Your task to perform on an android device: toggle show notifications on the lock screen Image 0: 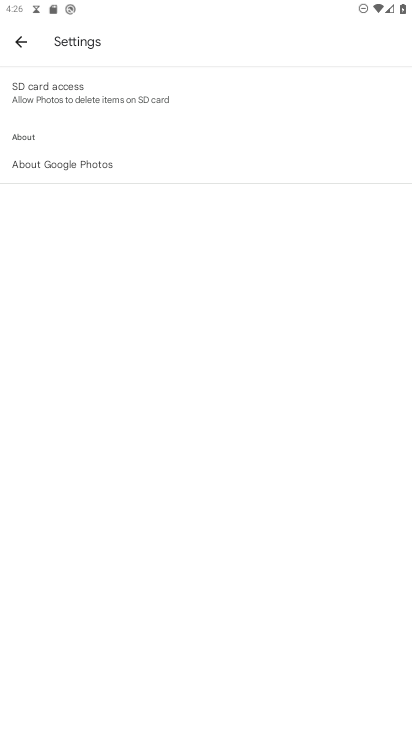
Step 0: press home button
Your task to perform on an android device: toggle show notifications on the lock screen Image 1: 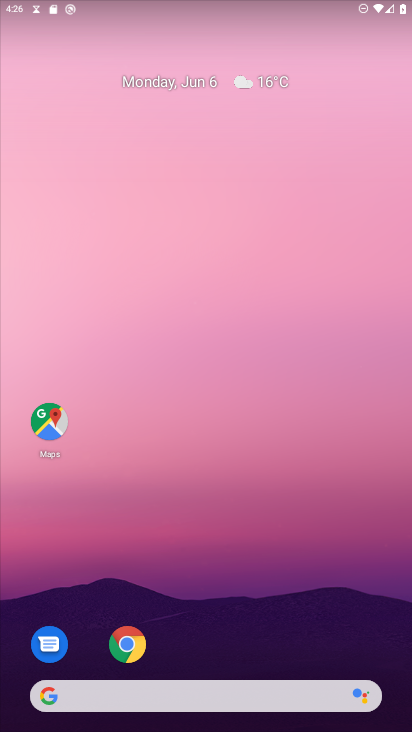
Step 1: drag from (114, 729) to (18, 171)
Your task to perform on an android device: toggle show notifications on the lock screen Image 2: 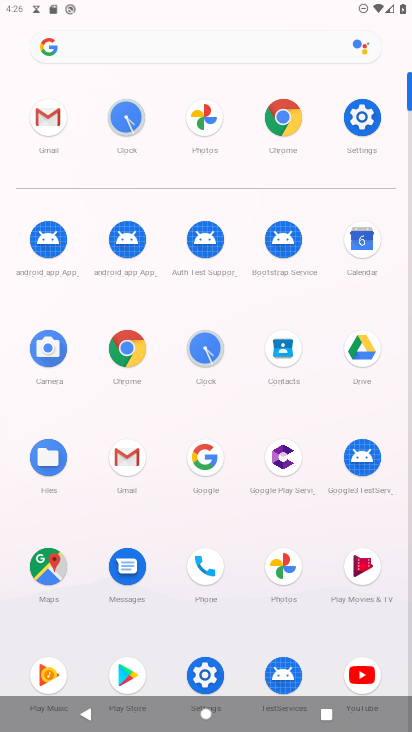
Step 2: click (349, 131)
Your task to perform on an android device: toggle show notifications on the lock screen Image 3: 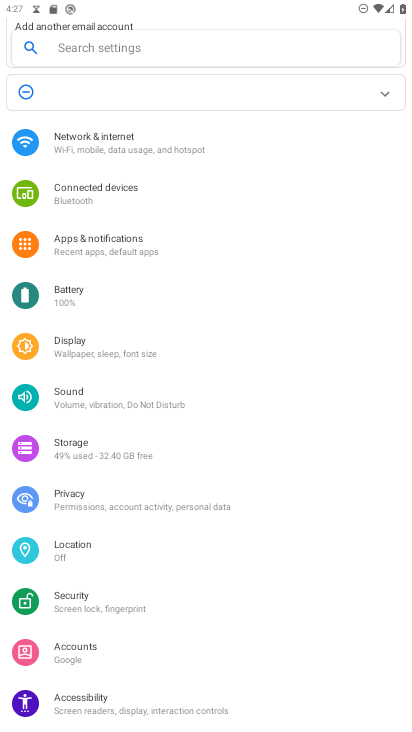
Step 3: click (141, 252)
Your task to perform on an android device: toggle show notifications on the lock screen Image 4: 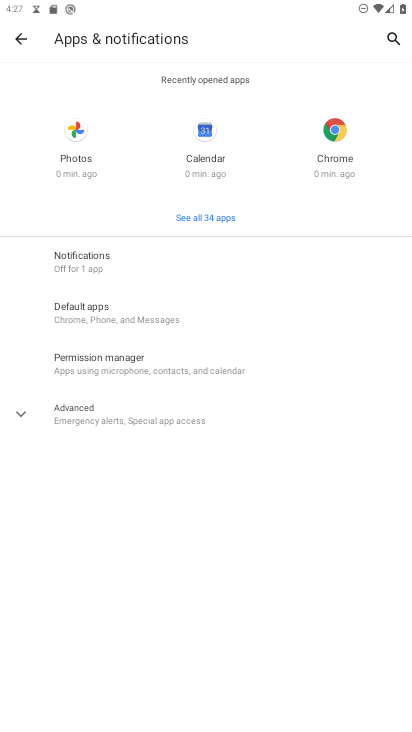
Step 4: click (156, 271)
Your task to perform on an android device: toggle show notifications on the lock screen Image 5: 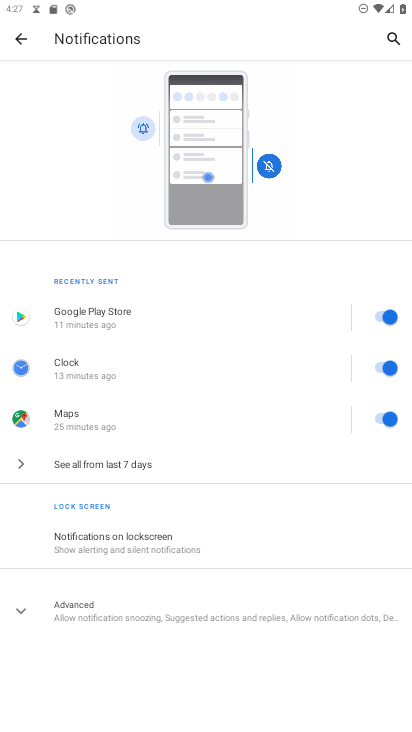
Step 5: click (166, 540)
Your task to perform on an android device: toggle show notifications on the lock screen Image 6: 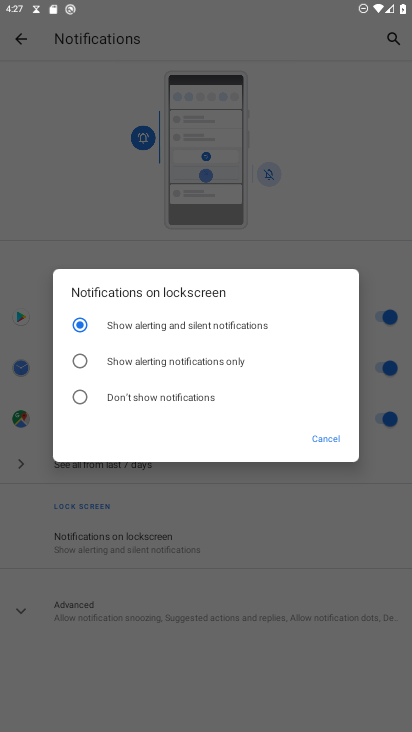
Step 6: task complete